Your task to perform on an android device: turn on the 24-hour format for clock Image 0: 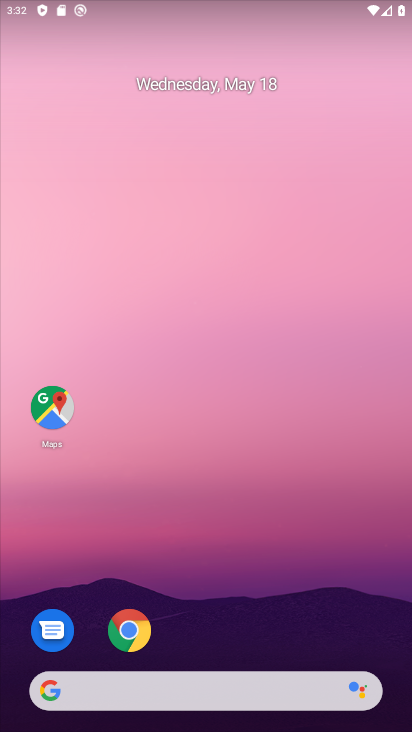
Step 0: drag from (206, 725) to (215, 186)
Your task to perform on an android device: turn on the 24-hour format for clock Image 1: 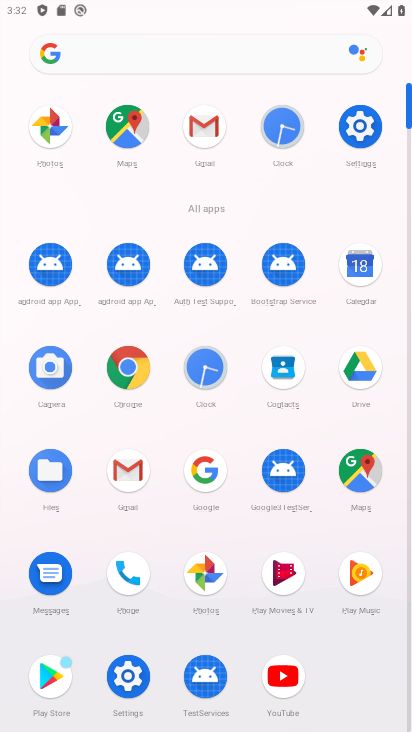
Step 1: click (202, 374)
Your task to perform on an android device: turn on the 24-hour format for clock Image 2: 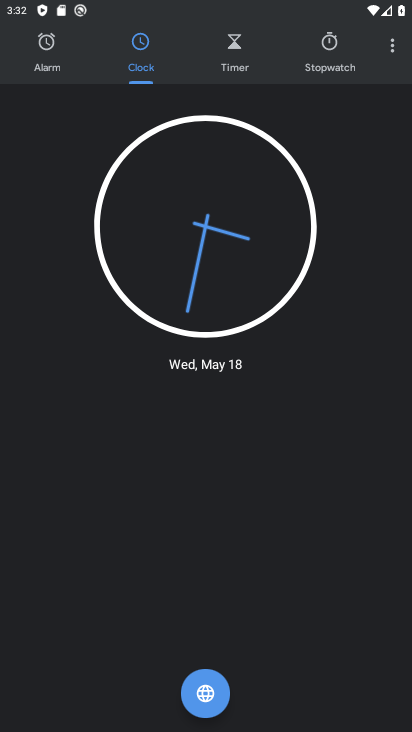
Step 2: click (393, 51)
Your task to perform on an android device: turn on the 24-hour format for clock Image 3: 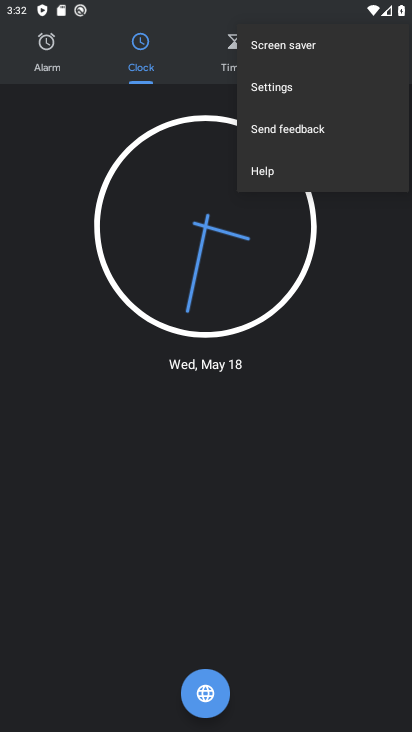
Step 3: click (280, 87)
Your task to perform on an android device: turn on the 24-hour format for clock Image 4: 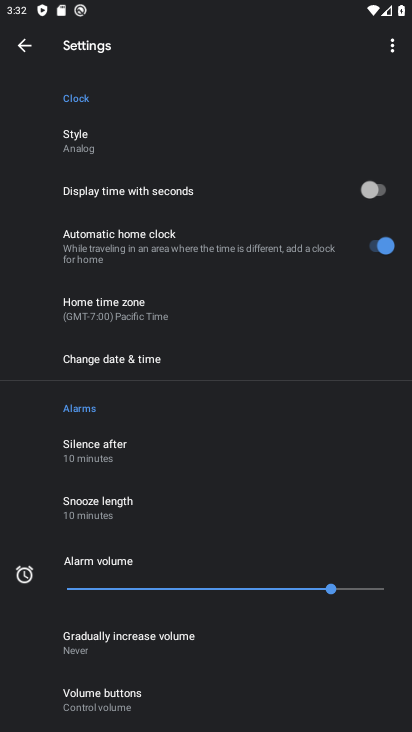
Step 4: click (116, 356)
Your task to perform on an android device: turn on the 24-hour format for clock Image 5: 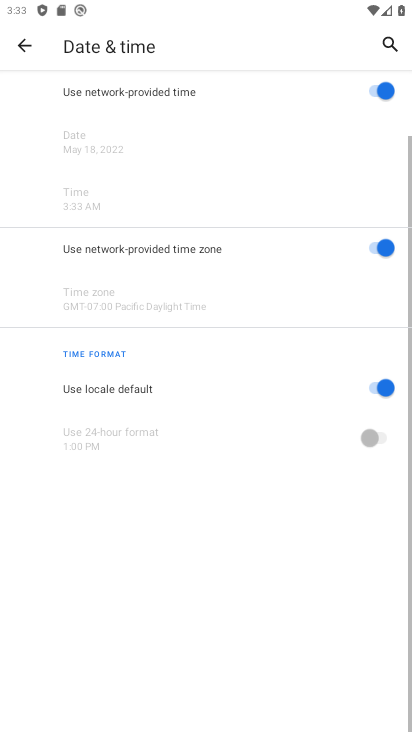
Step 5: click (369, 389)
Your task to perform on an android device: turn on the 24-hour format for clock Image 6: 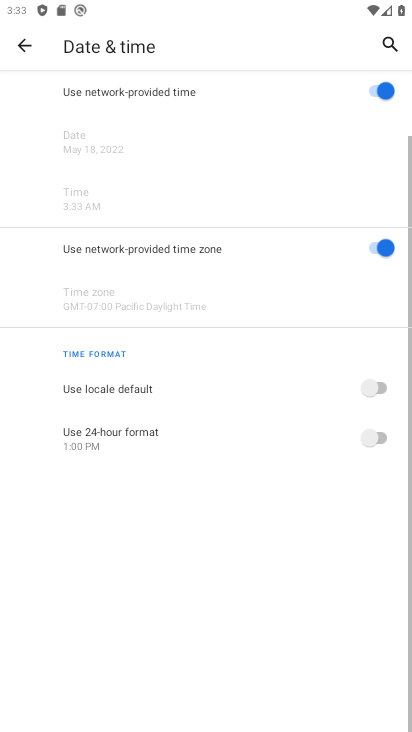
Step 6: click (383, 437)
Your task to perform on an android device: turn on the 24-hour format for clock Image 7: 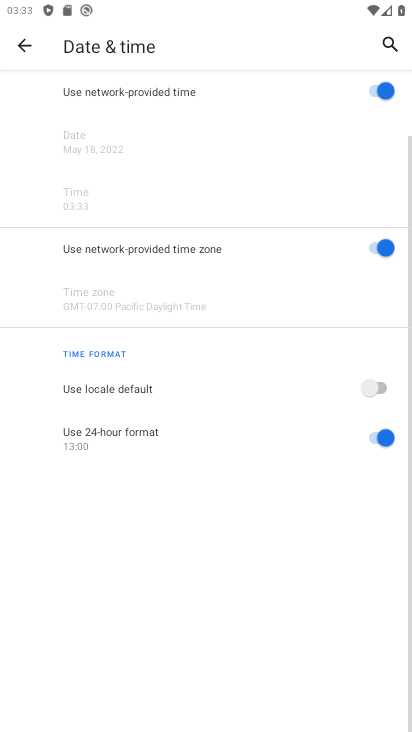
Step 7: task complete